Your task to perform on an android device: Open settings on Google Maps Image 0: 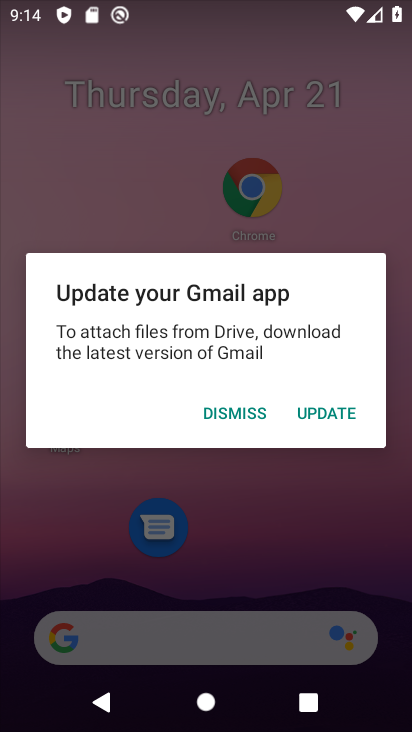
Step 0: press home button
Your task to perform on an android device: Open settings on Google Maps Image 1: 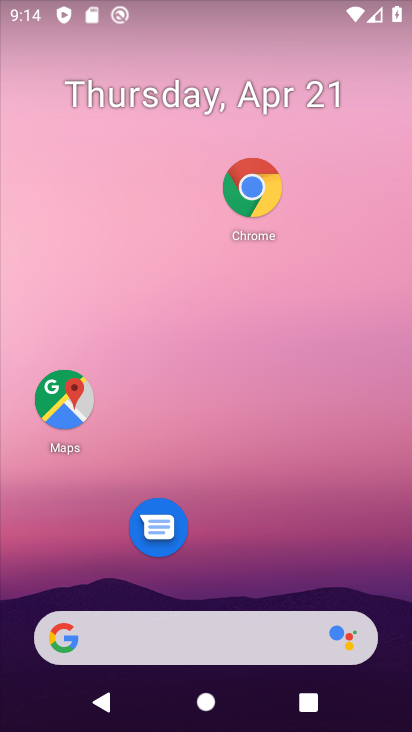
Step 1: drag from (276, 554) to (301, 168)
Your task to perform on an android device: Open settings on Google Maps Image 2: 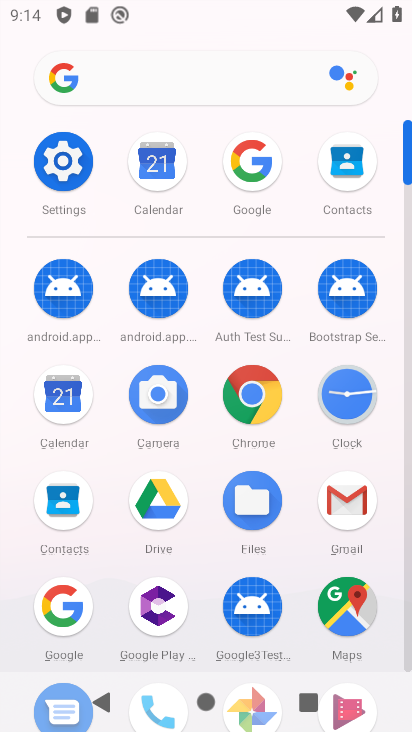
Step 2: click (346, 592)
Your task to perform on an android device: Open settings on Google Maps Image 3: 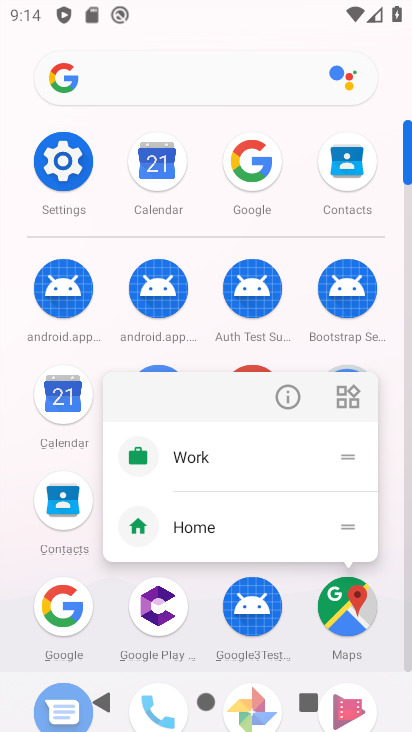
Step 3: click (367, 605)
Your task to perform on an android device: Open settings on Google Maps Image 4: 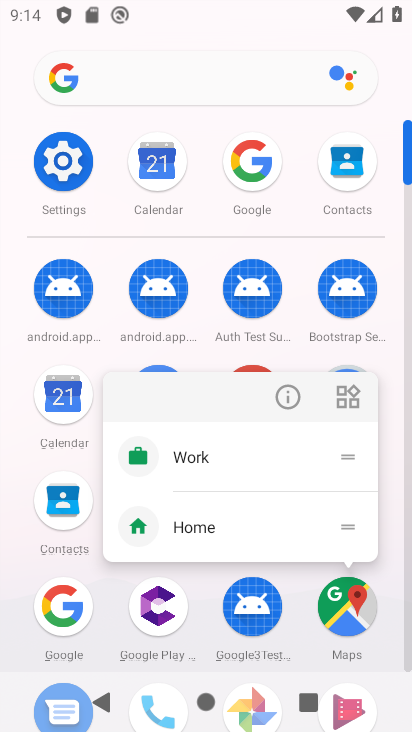
Step 4: click (339, 606)
Your task to perform on an android device: Open settings on Google Maps Image 5: 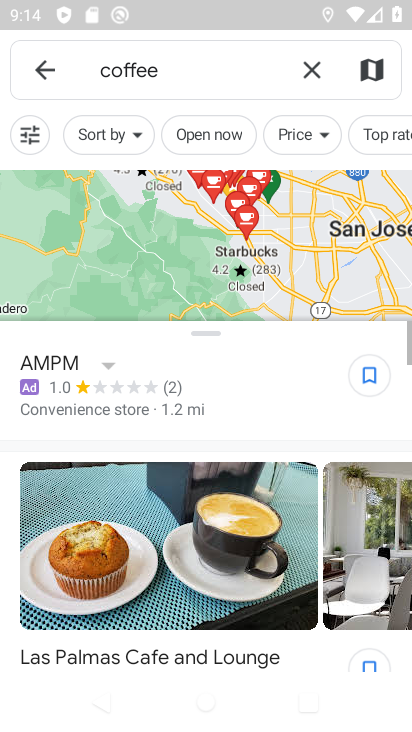
Step 5: click (40, 78)
Your task to perform on an android device: Open settings on Google Maps Image 6: 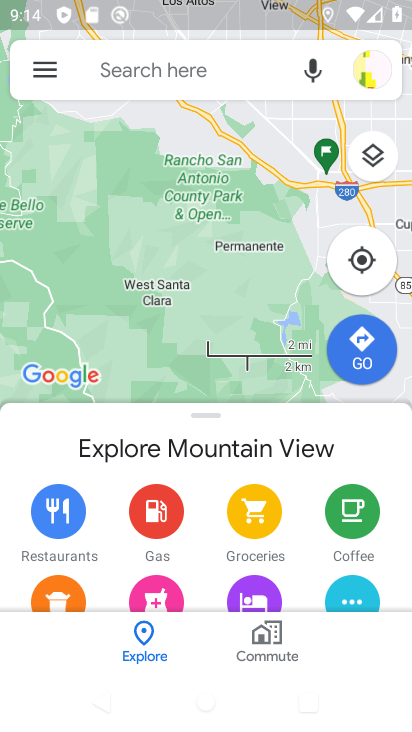
Step 6: click (38, 75)
Your task to perform on an android device: Open settings on Google Maps Image 7: 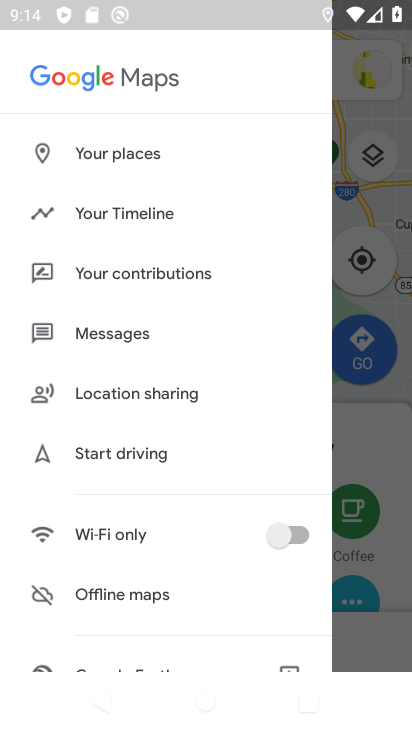
Step 7: drag from (101, 489) to (122, 197)
Your task to perform on an android device: Open settings on Google Maps Image 8: 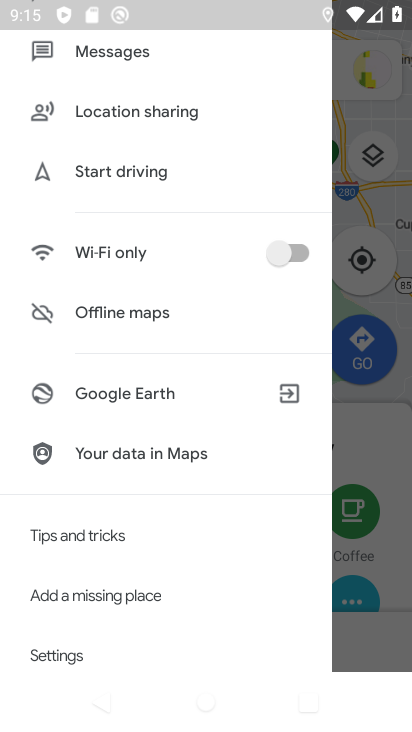
Step 8: drag from (112, 508) to (214, 133)
Your task to perform on an android device: Open settings on Google Maps Image 9: 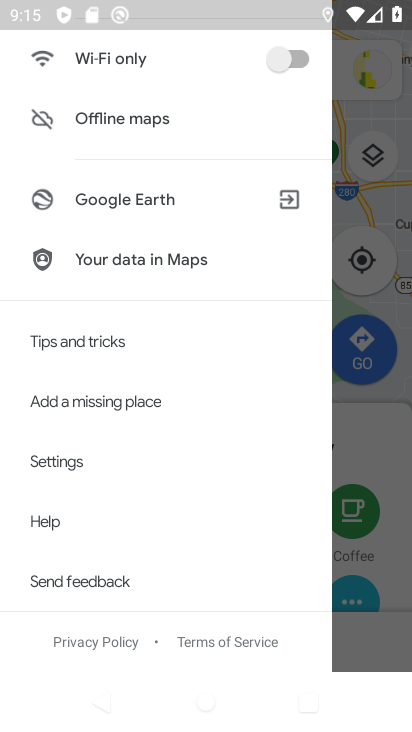
Step 9: click (124, 451)
Your task to perform on an android device: Open settings on Google Maps Image 10: 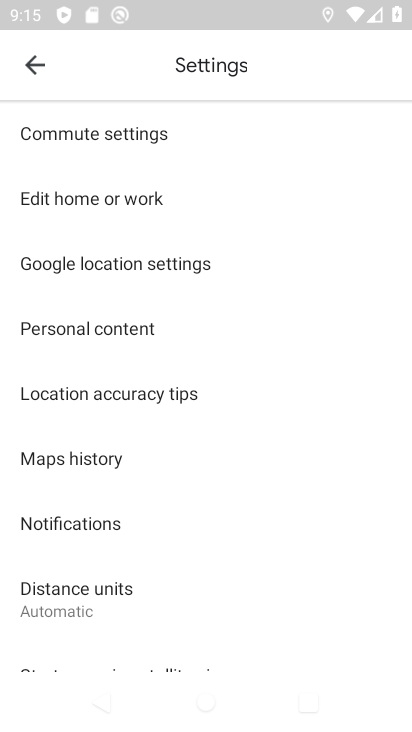
Step 10: task complete